Your task to perform on an android device: Open settings on Google Maps Image 0: 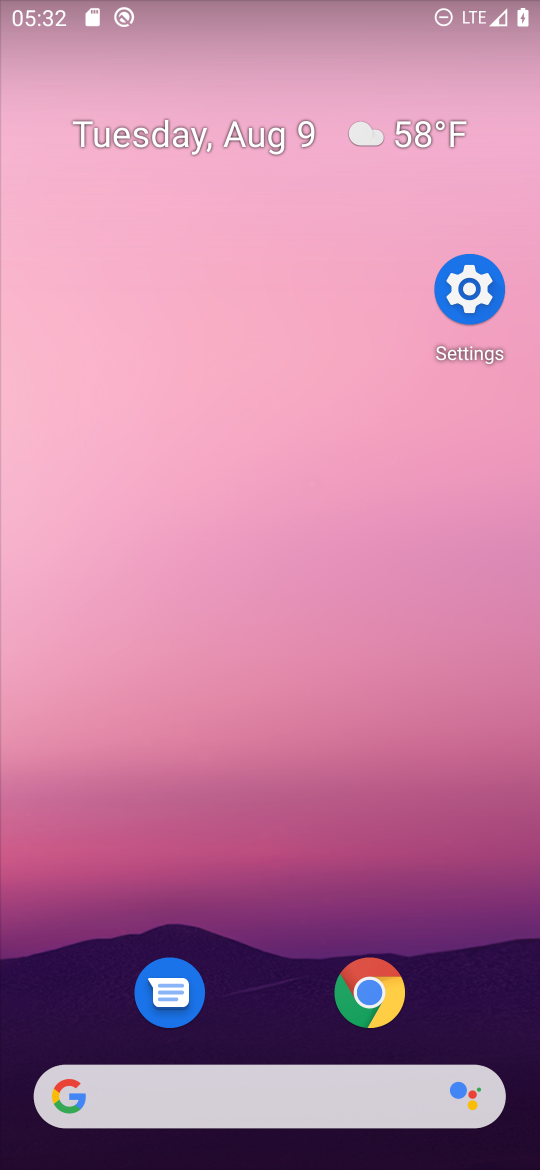
Step 0: drag from (372, 1066) to (494, 113)
Your task to perform on an android device: Open settings on Google Maps Image 1: 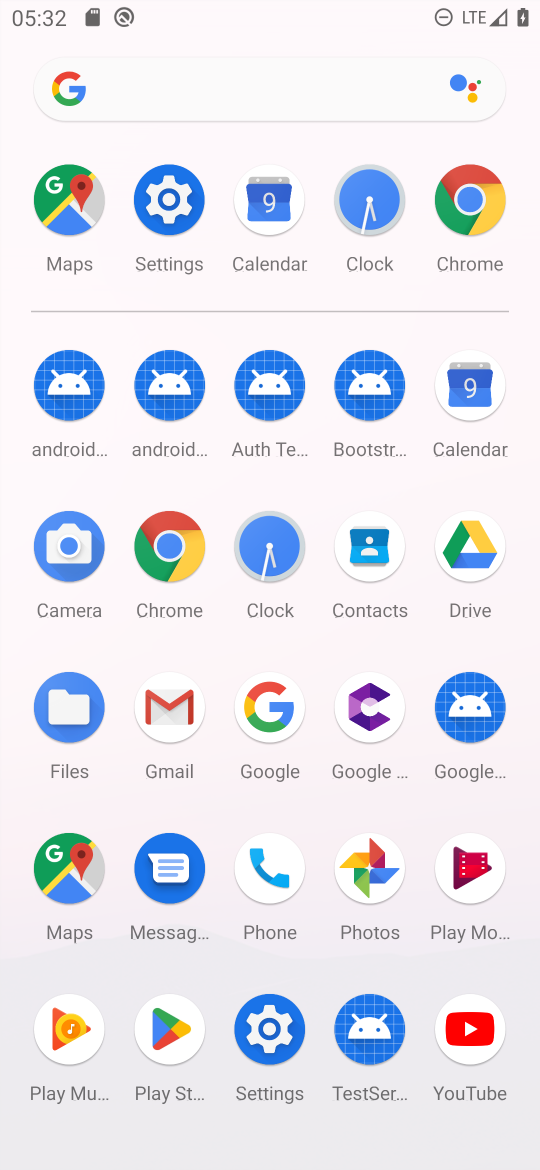
Step 1: click (87, 857)
Your task to perform on an android device: Open settings on Google Maps Image 2: 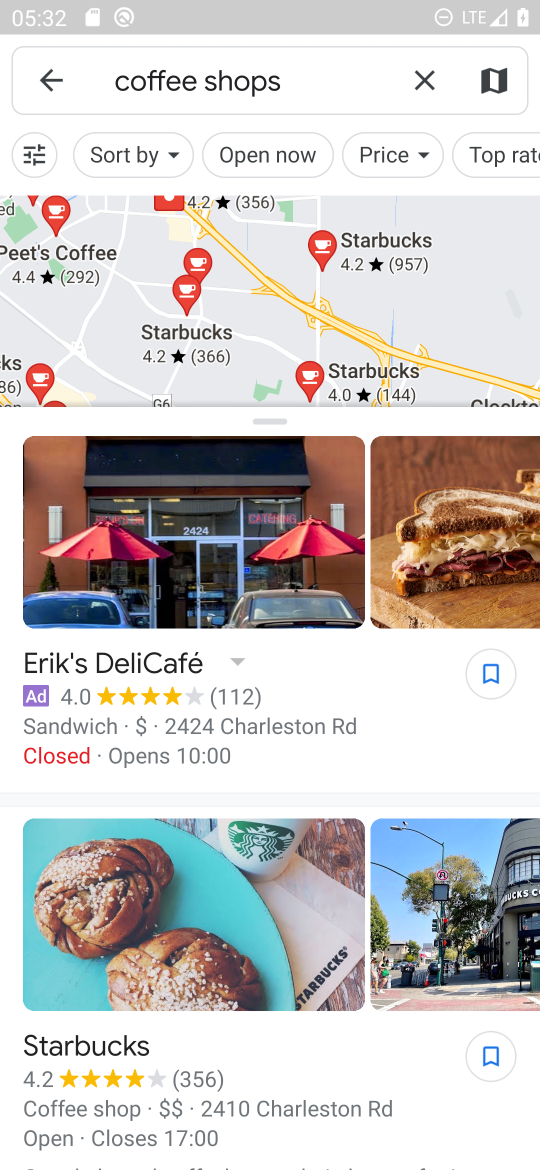
Step 2: press back button
Your task to perform on an android device: Open settings on Google Maps Image 3: 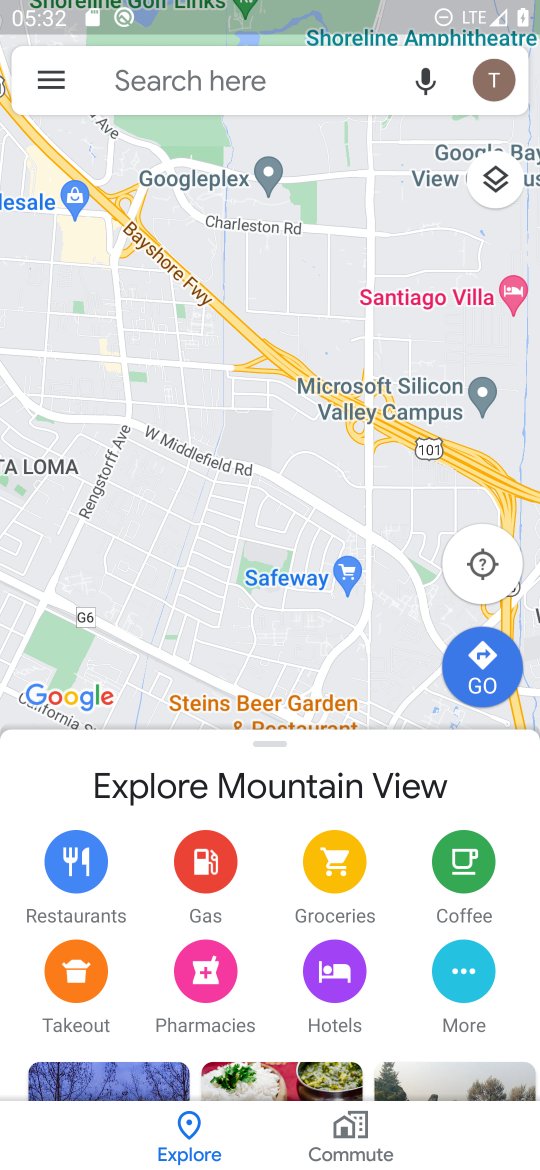
Step 3: click (33, 73)
Your task to perform on an android device: Open settings on Google Maps Image 4: 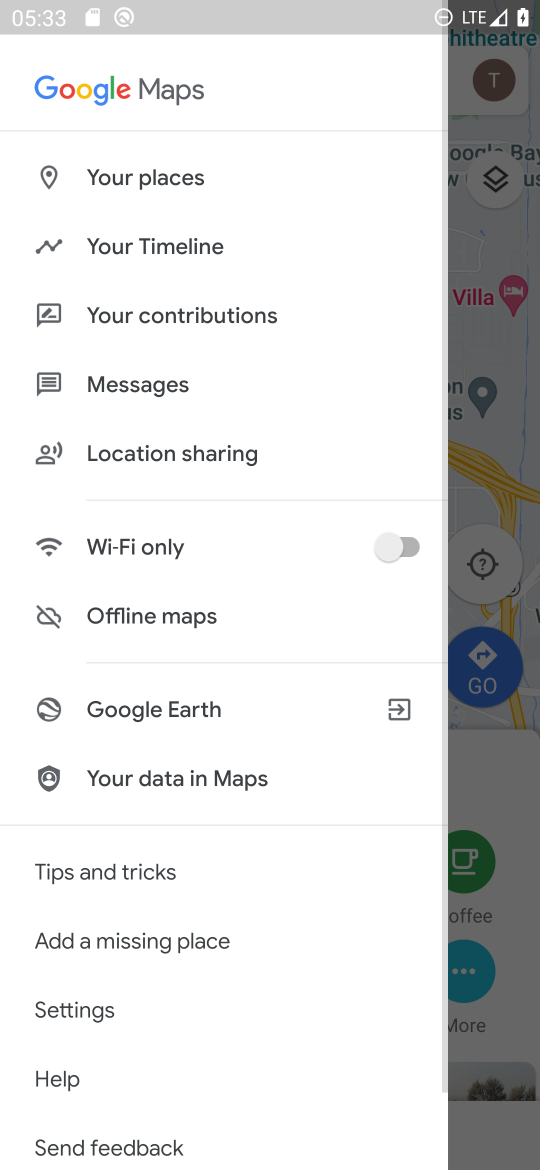
Step 4: click (187, 249)
Your task to perform on an android device: Open settings on Google Maps Image 5: 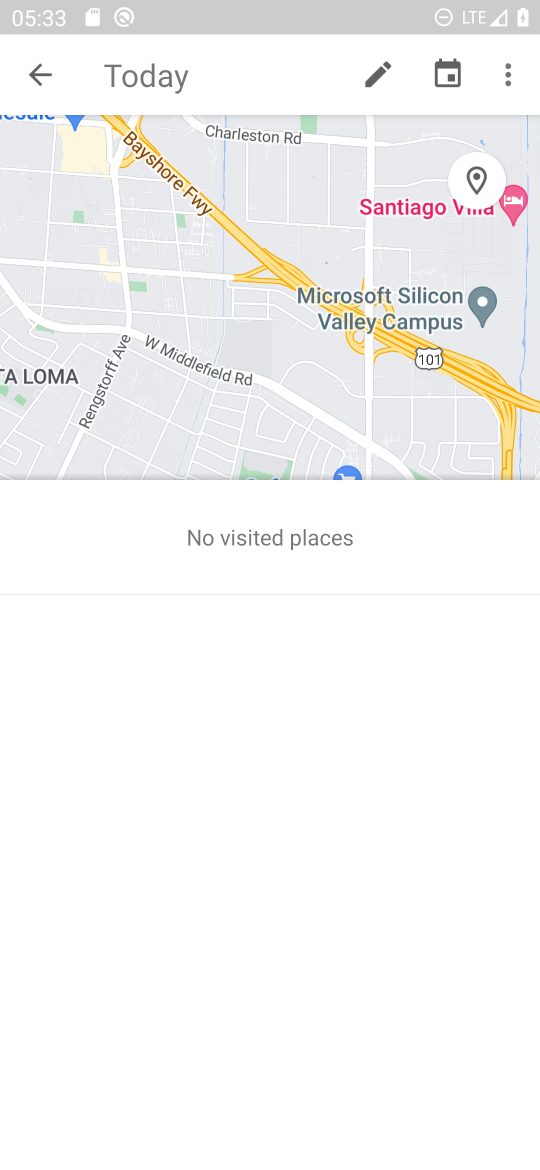
Step 5: click (511, 62)
Your task to perform on an android device: Open settings on Google Maps Image 6: 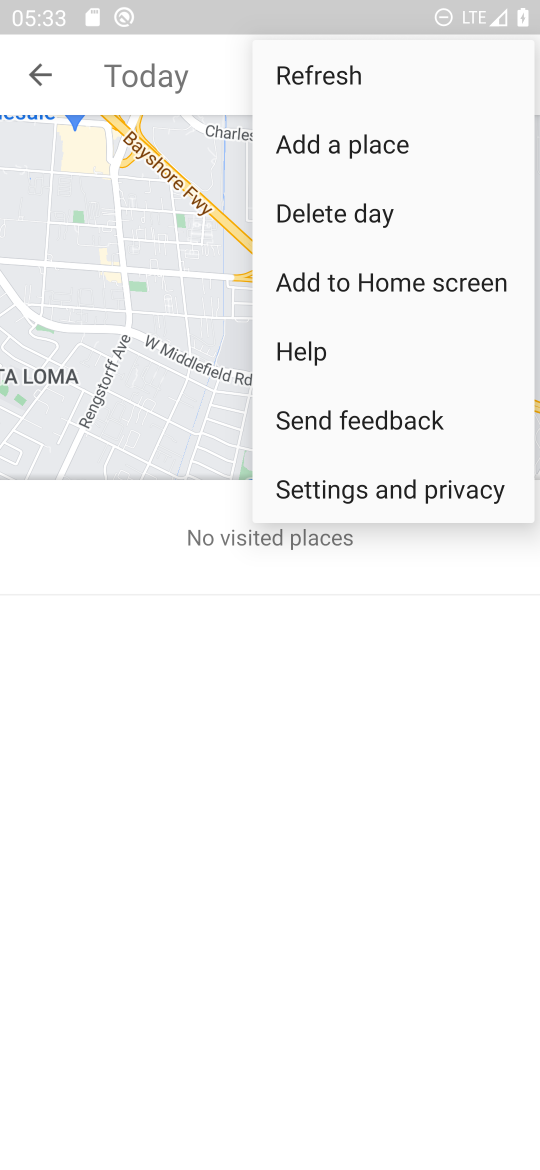
Step 6: click (348, 489)
Your task to perform on an android device: Open settings on Google Maps Image 7: 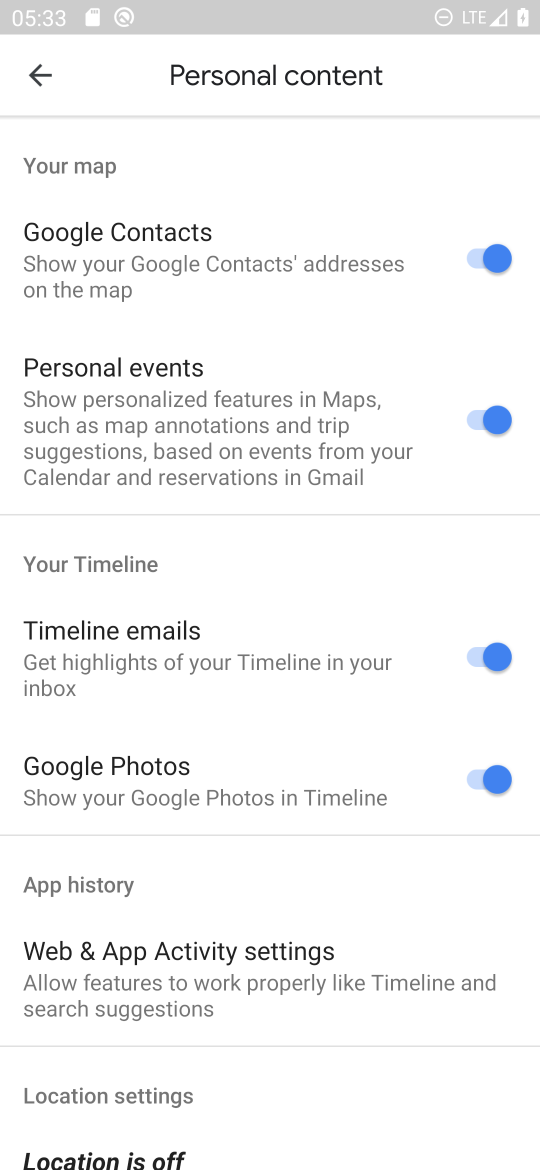
Step 7: task complete